Your task to perform on an android device: Search for pizza restaurants on Maps Image 0: 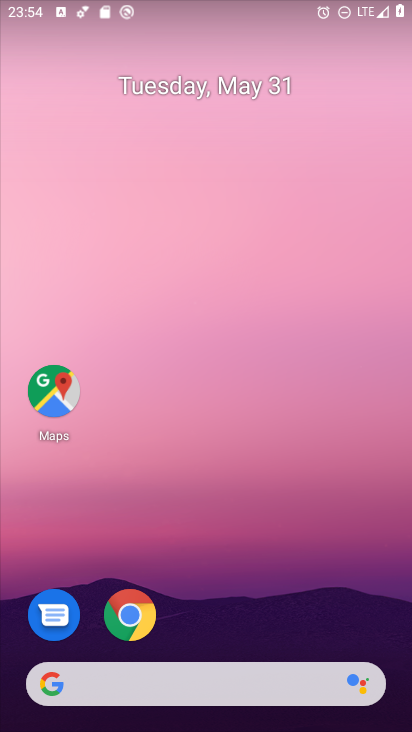
Step 0: click (55, 392)
Your task to perform on an android device: Search for pizza restaurants on Maps Image 1: 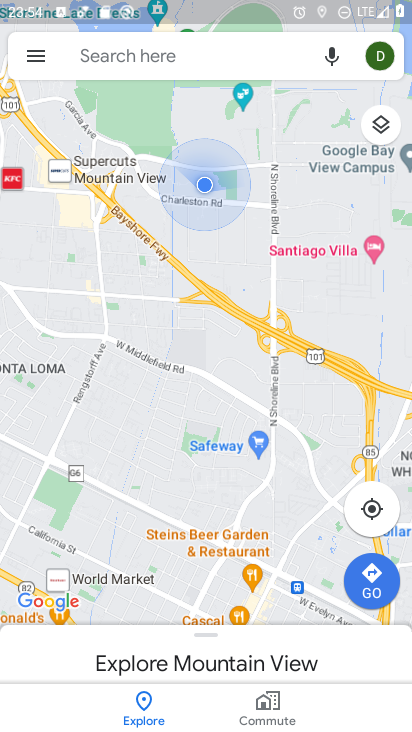
Step 1: click (154, 53)
Your task to perform on an android device: Search for pizza restaurants on Maps Image 2: 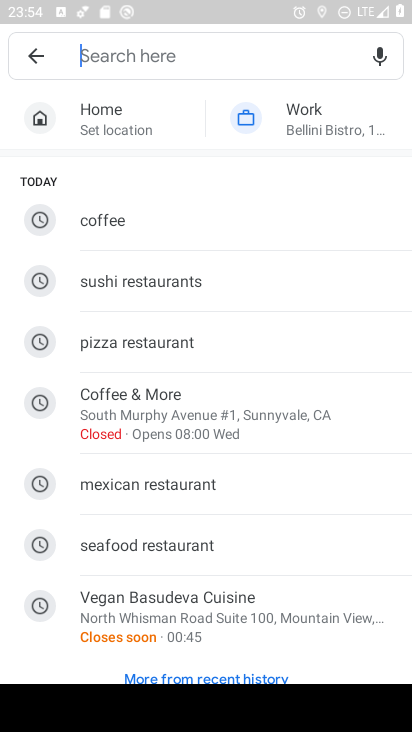
Step 2: type "pizza restaurants"
Your task to perform on an android device: Search for pizza restaurants on Maps Image 3: 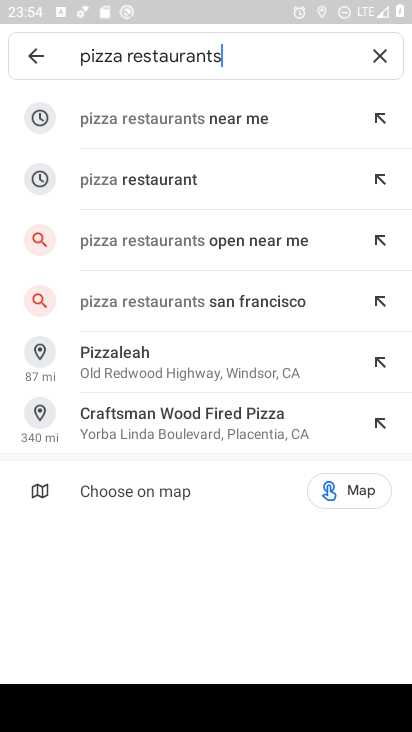
Step 3: click (145, 176)
Your task to perform on an android device: Search for pizza restaurants on Maps Image 4: 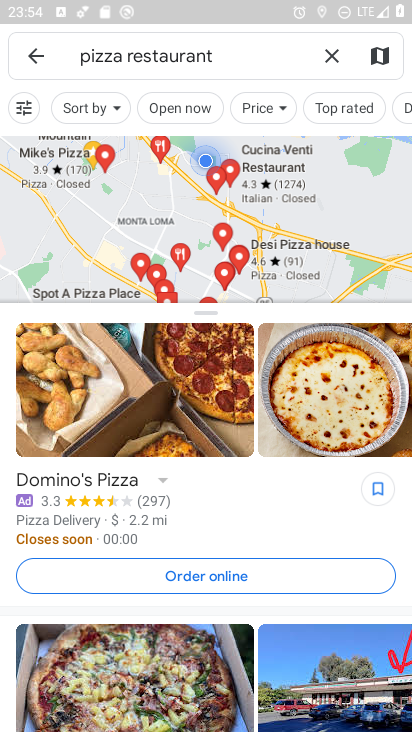
Step 4: task complete